Your task to perform on an android device: Search for Italian restaurants on Maps Image 0: 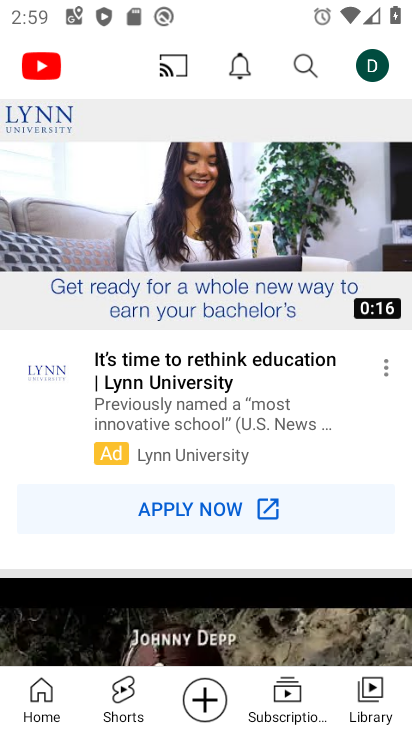
Step 0: press home button
Your task to perform on an android device: Search for Italian restaurants on Maps Image 1: 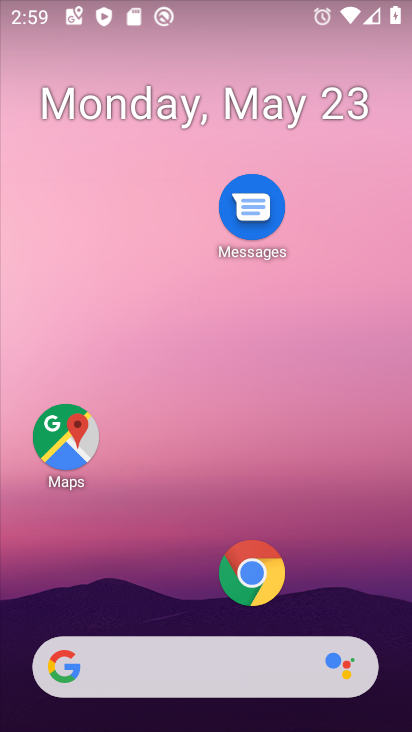
Step 1: drag from (285, 660) to (322, 41)
Your task to perform on an android device: Search for Italian restaurants on Maps Image 2: 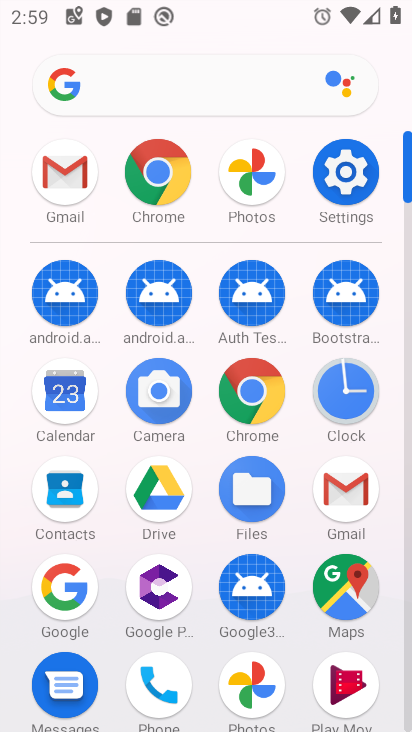
Step 2: click (357, 578)
Your task to perform on an android device: Search for Italian restaurants on Maps Image 3: 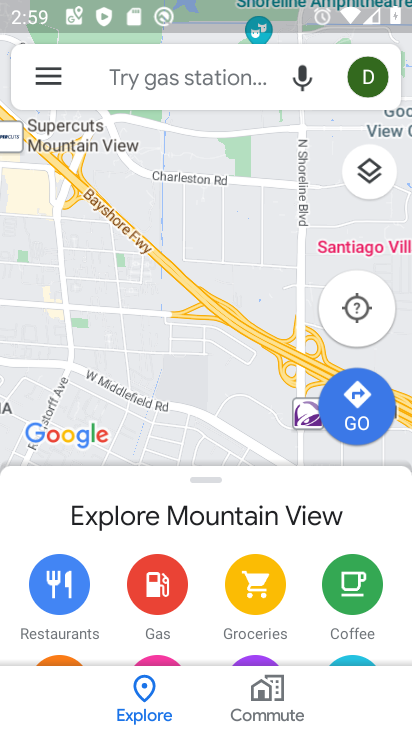
Step 3: click (178, 67)
Your task to perform on an android device: Search for Italian restaurants on Maps Image 4: 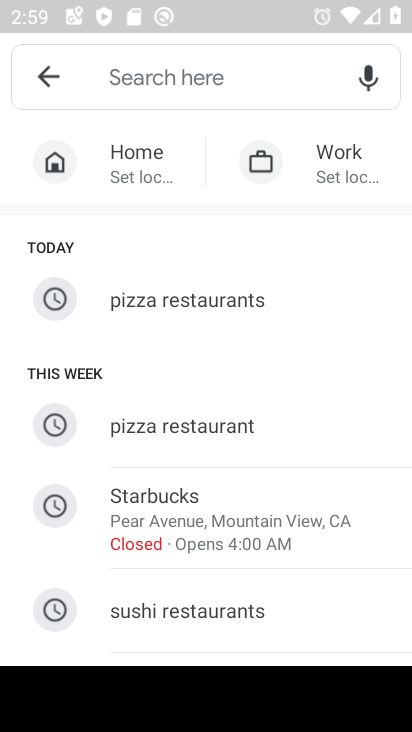
Step 4: type "italian restaurant"
Your task to perform on an android device: Search for Italian restaurants on Maps Image 5: 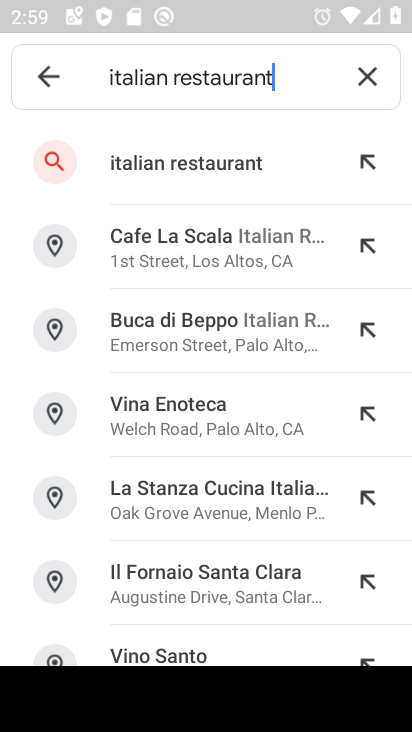
Step 5: click (174, 150)
Your task to perform on an android device: Search for Italian restaurants on Maps Image 6: 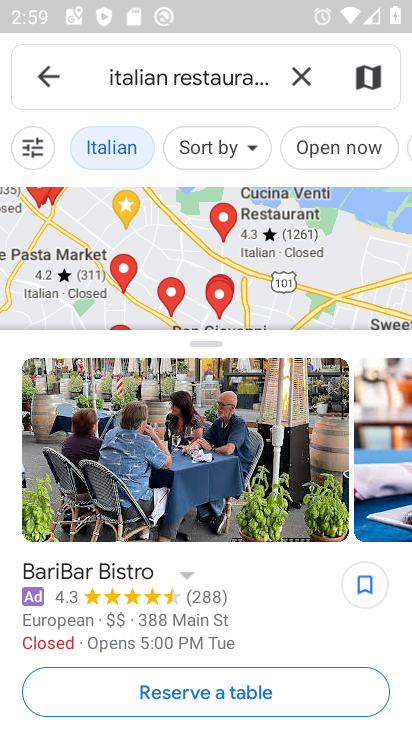
Step 6: task complete